Your task to perform on an android device: Go to CNN.com Image 0: 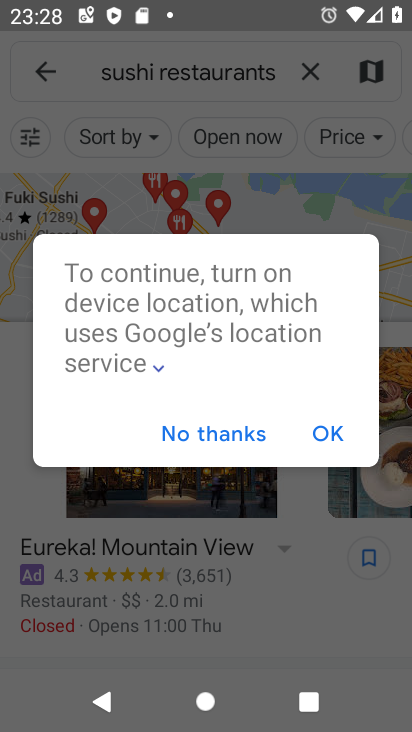
Step 0: press home button
Your task to perform on an android device: Go to CNN.com Image 1: 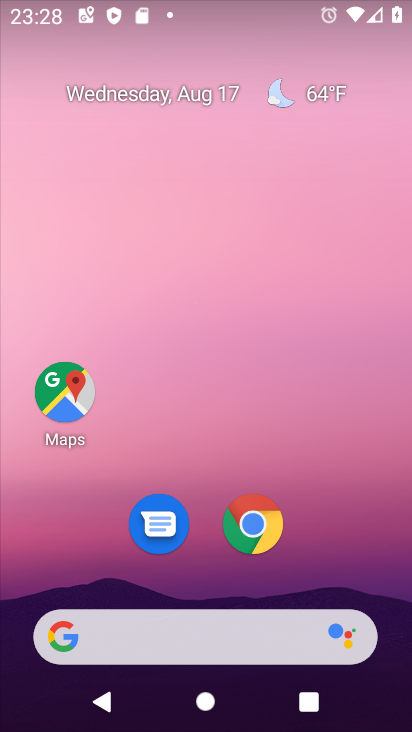
Step 1: click (244, 642)
Your task to perform on an android device: Go to CNN.com Image 2: 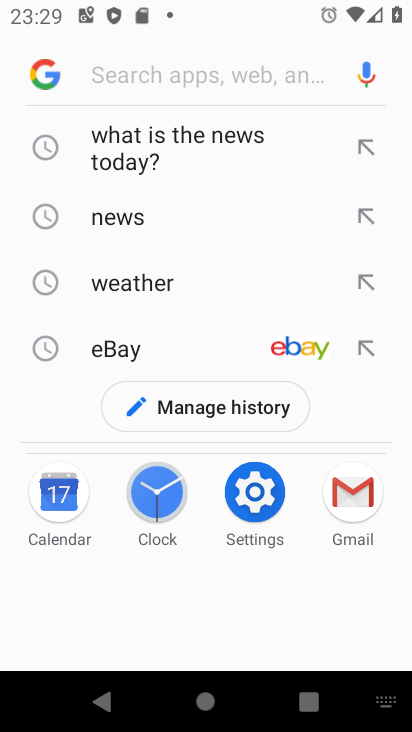
Step 2: type "cnn.com"
Your task to perform on an android device: Go to CNN.com Image 3: 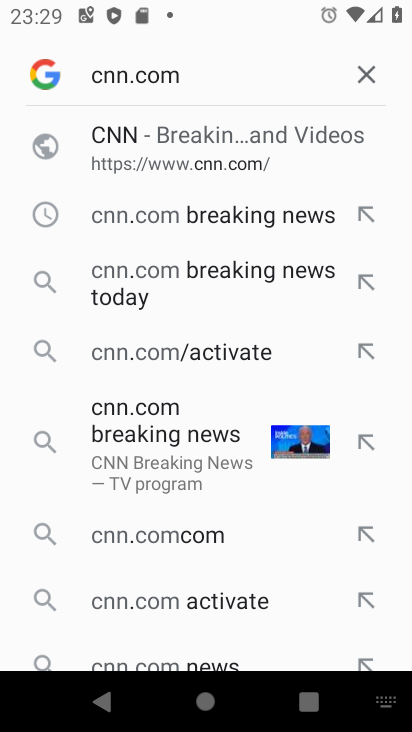
Step 3: click (250, 155)
Your task to perform on an android device: Go to CNN.com Image 4: 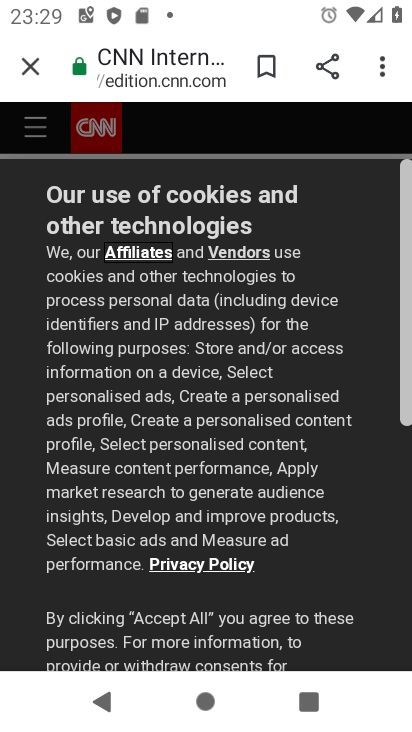
Step 4: drag from (252, 460) to (254, 164)
Your task to perform on an android device: Go to CNN.com Image 5: 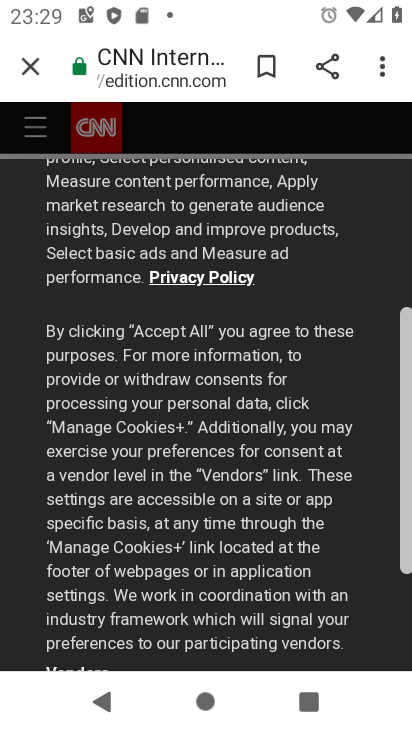
Step 5: drag from (220, 525) to (229, 168)
Your task to perform on an android device: Go to CNN.com Image 6: 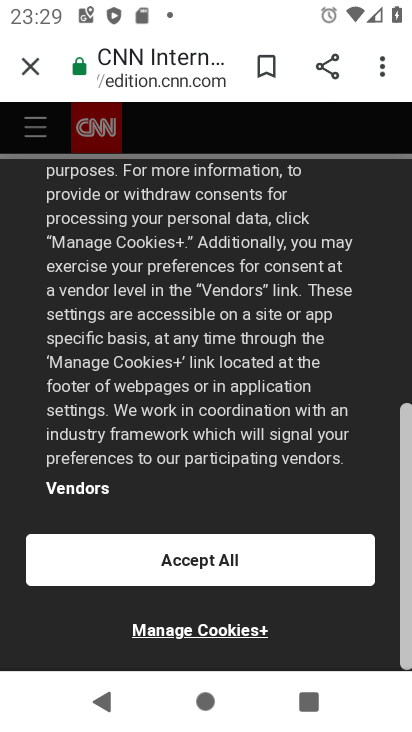
Step 6: click (253, 564)
Your task to perform on an android device: Go to CNN.com Image 7: 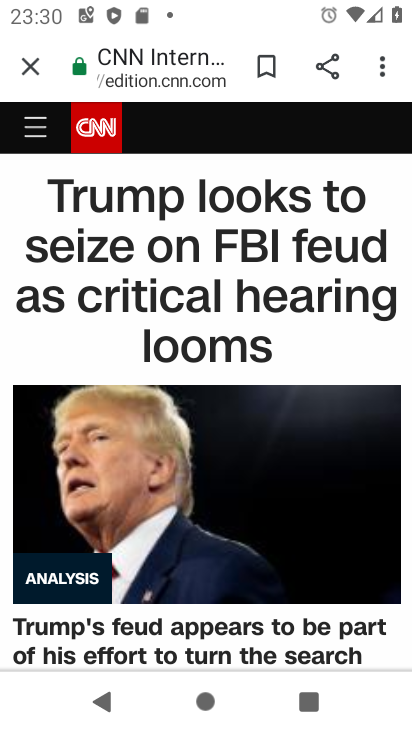
Step 7: task complete